Your task to perform on an android device: search for starred emails in the gmail app Image 0: 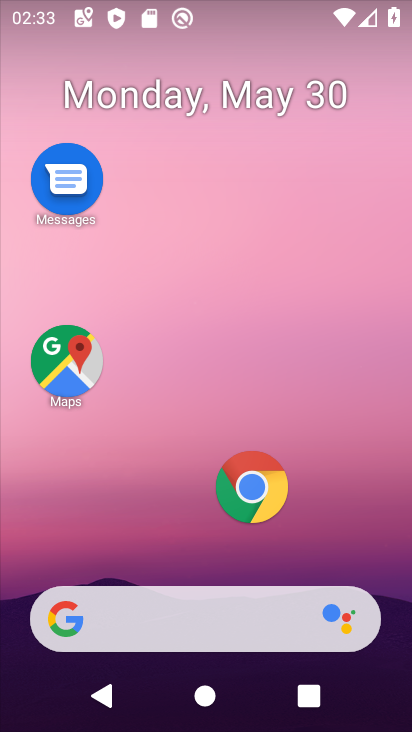
Step 0: drag from (254, 562) to (206, 1)
Your task to perform on an android device: search for starred emails in the gmail app Image 1: 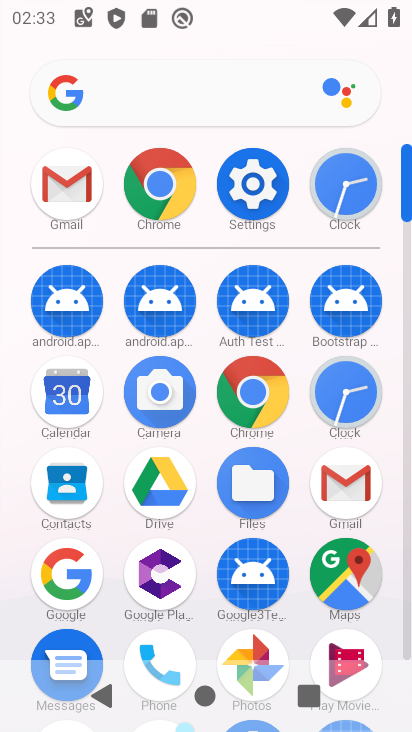
Step 1: click (60, 179)
Your task to perform on an android device: search for starred emails in the gmail app Image 2: 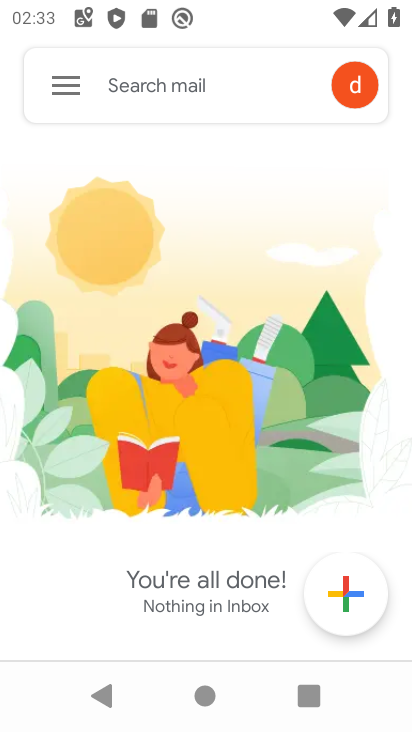
Step 2: click (58, 73)
Your task to perform on an android device: search for starred emails in the gmail app Image 3: 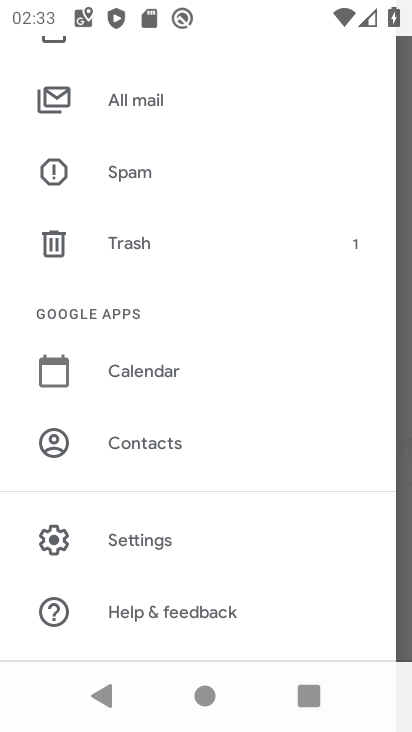
Step 3: drag from (126, 169) to (96, 614)
Your task to perform on an android device: search for starred emails in the gmail app Image 4: 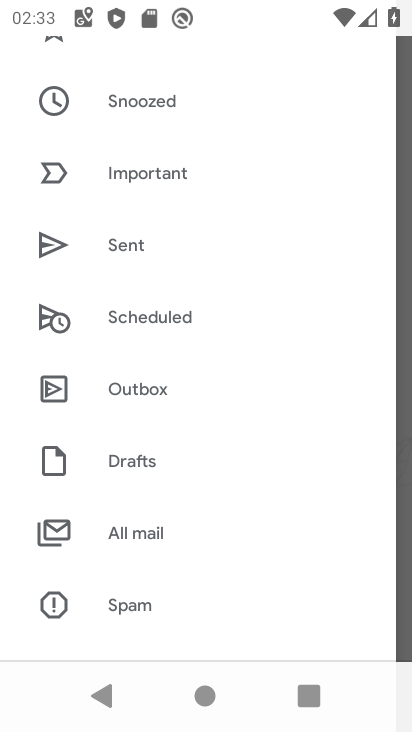
Step 4: drag from (202, 236) to (212, 688)
Your task to perform on an android device: search for starred emails in the gmail app Image 5: 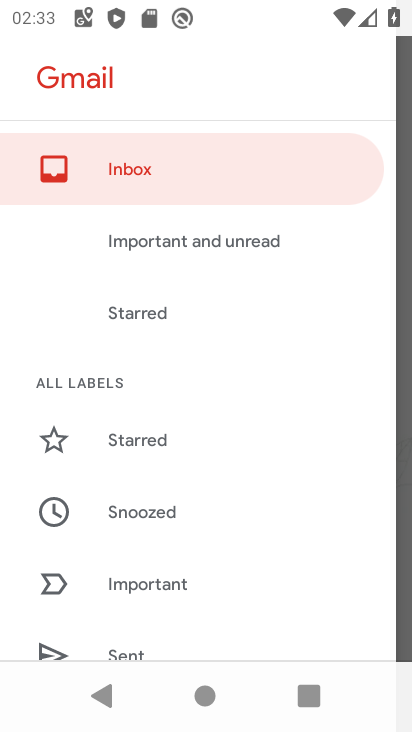
Step 5: click (120, 453)
Your task to perform on an android device: search for starred emails in the gmail app Image 6: 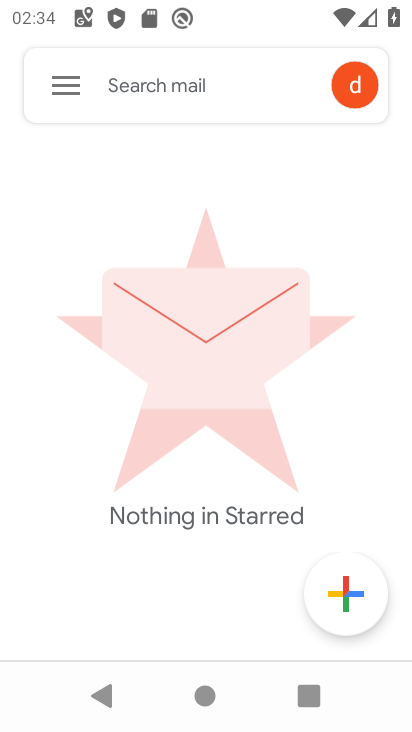
Step 6: task complete